Your task to perform on an android device: add a label to a message in the gmail app Image 0: 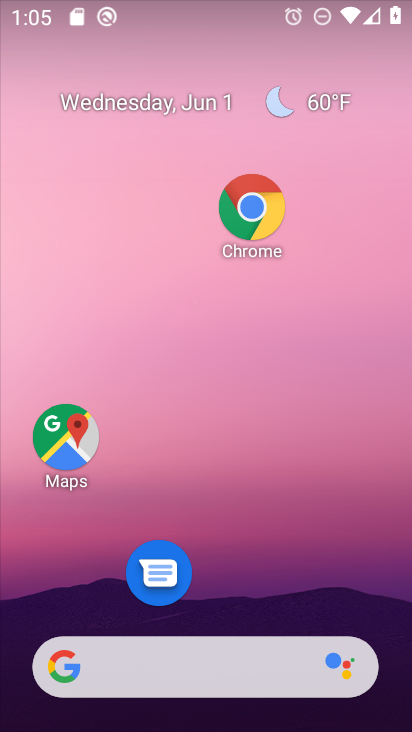
Step 0: drag from (202, 587) to (192, 166)
Your task to perform on an android device: add a label to a message in the gmail app Image 1: 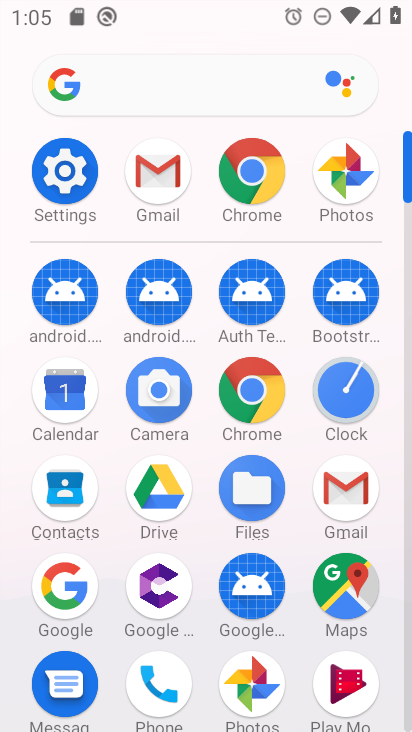
Step 1: click (165, 163)
Your task to perform on an android device: add a label to a message in the gmail app Image 2: 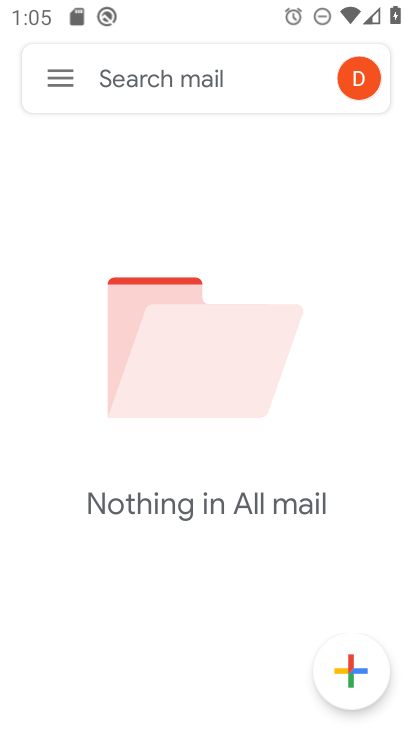
Step 2: click (67, 90)
Your task to perform on an android device: add a label to a message in the gmail app Image 3: 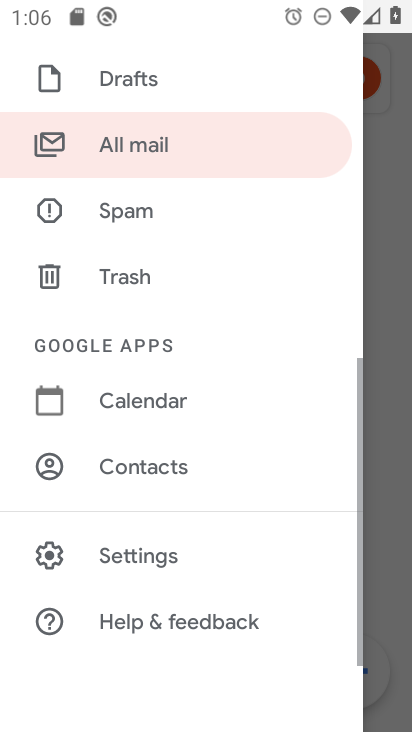
Step 3: click (87, 142)
Your task to perform on an android device: add a label to a message in the gmail app Image 4: 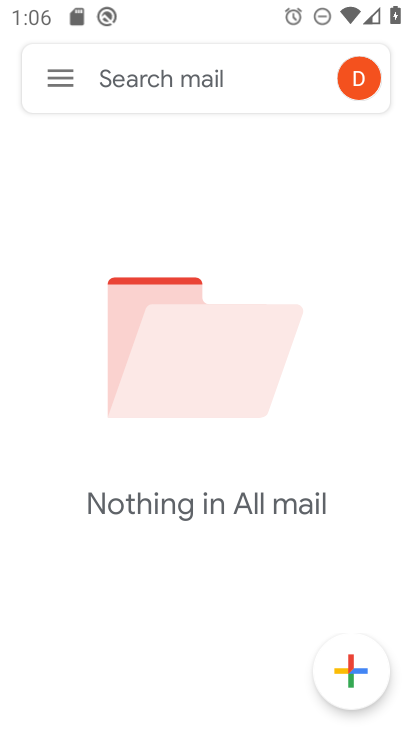
Step 4: task complete